Your task to perform on an android device: Go to notification settings Image 0: 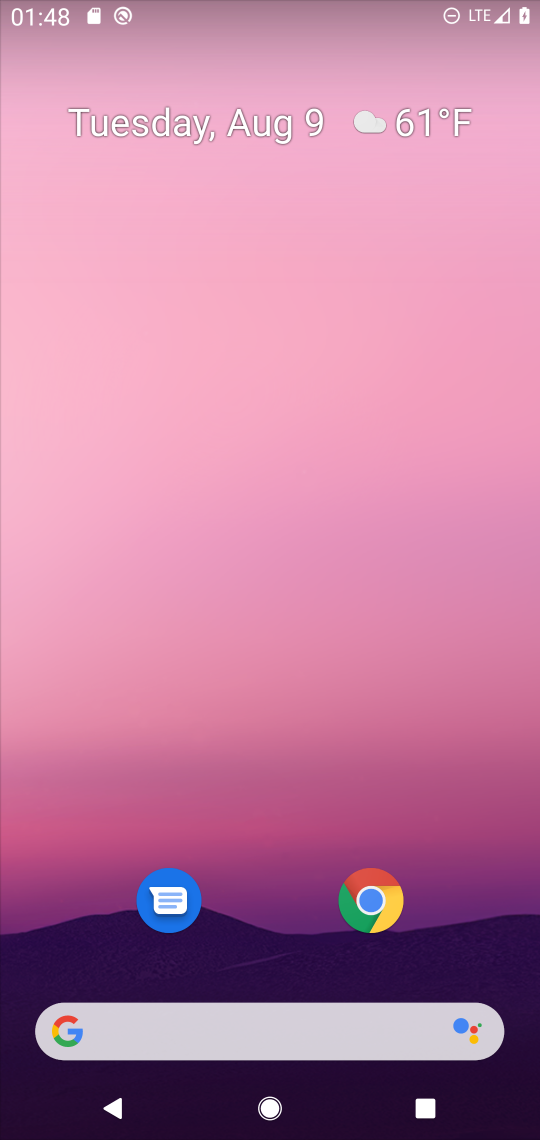
Step 0: press home button
Your task to perform on an android device: Go to notification settings Image 1: 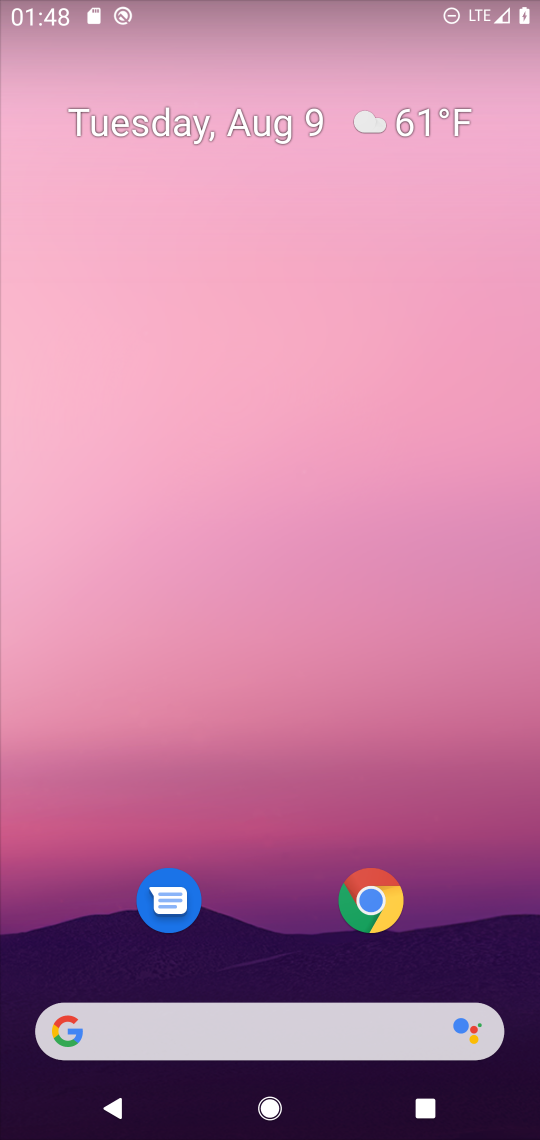
Step 1: drag from (266, 946) to (329, 104)
Your task to perform on an android device: Go to notification settings Image 2: 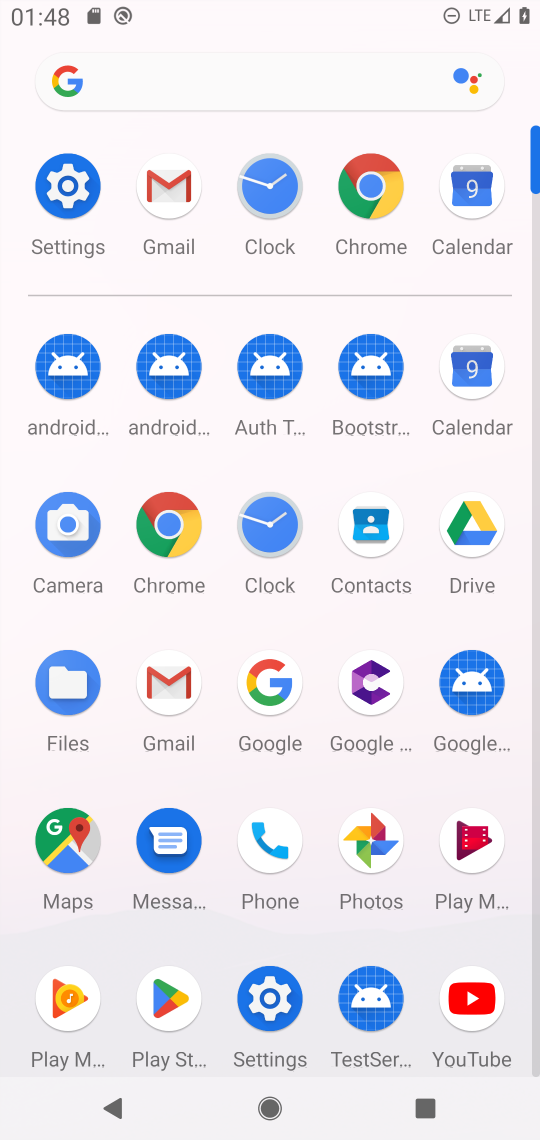
Step 2: click (56, 196)
Your task to perform on an android device: Go to notification settings Image 3: 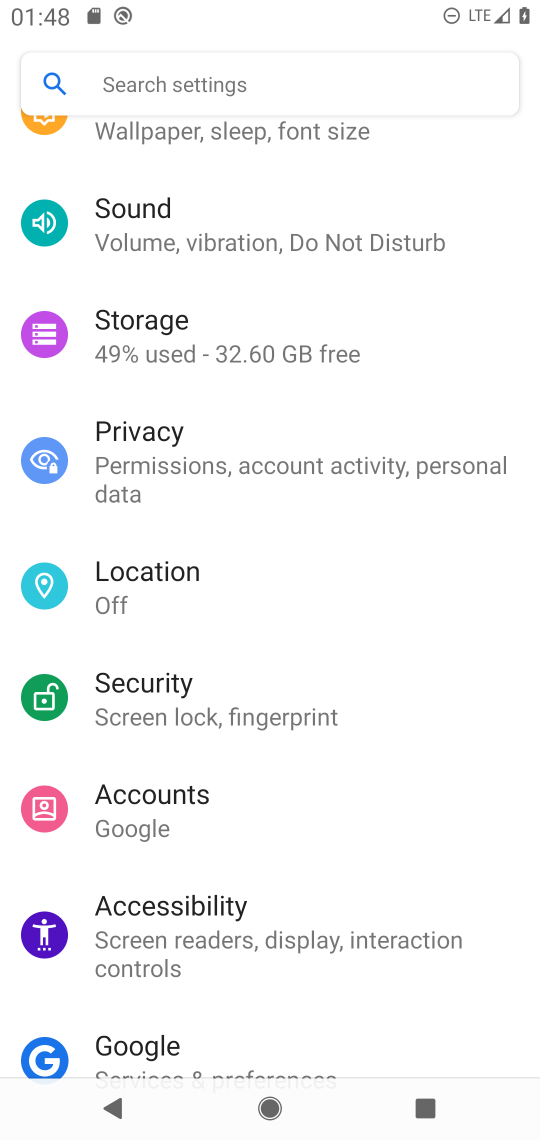
Step 3: click (457, 515)
Your task to perform on an android device: Go to notification settings Image 4: 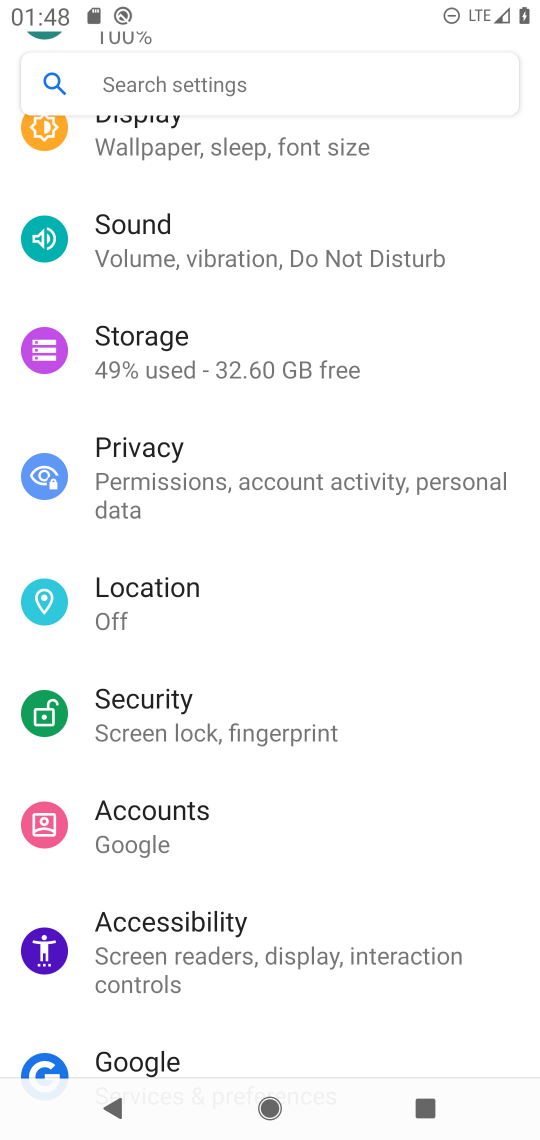
Step 4: drag from (491, 414) to (493, 535)
Your task to perform on an android device: Go to notification settings Image 5: 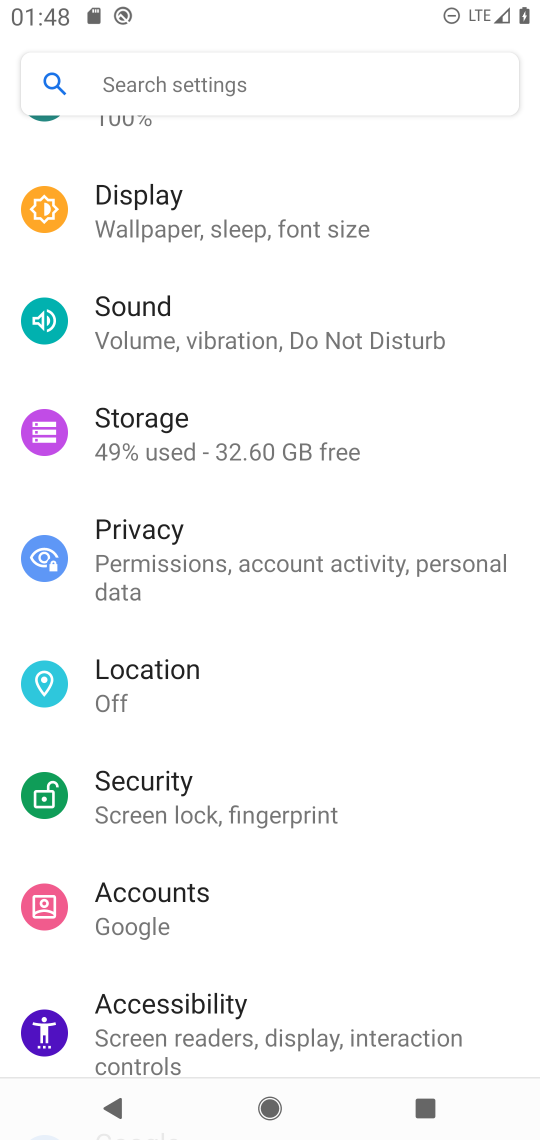
Step 5: drag from (491, 387) to (485, 504)
Your task to perform on an android device: Go to notification settings Image 6: 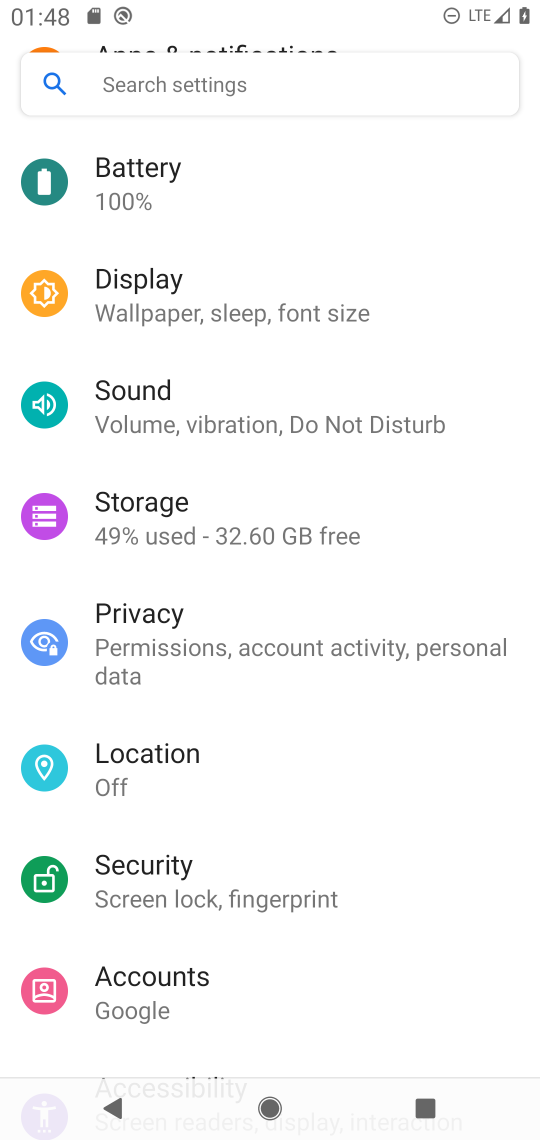
Step 6: drag from (485, 359) to (478, 503)
Your task to perform on an android device: Go to notification settings Image 7: 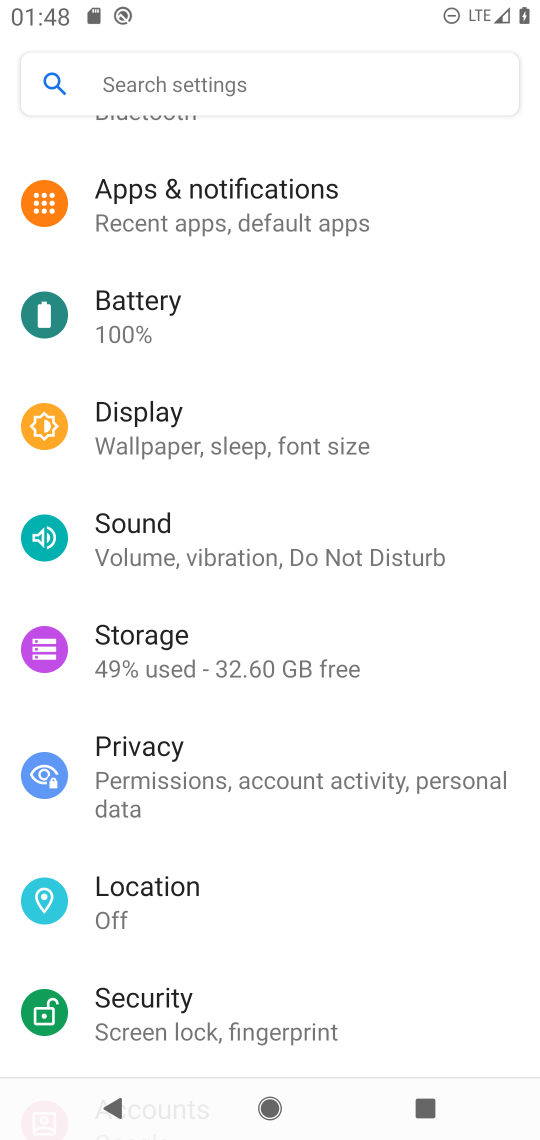
Step 7: drag from (469, 372) to (485, 548)
Your task to perform on an android device: Go to notification settings Image 8: 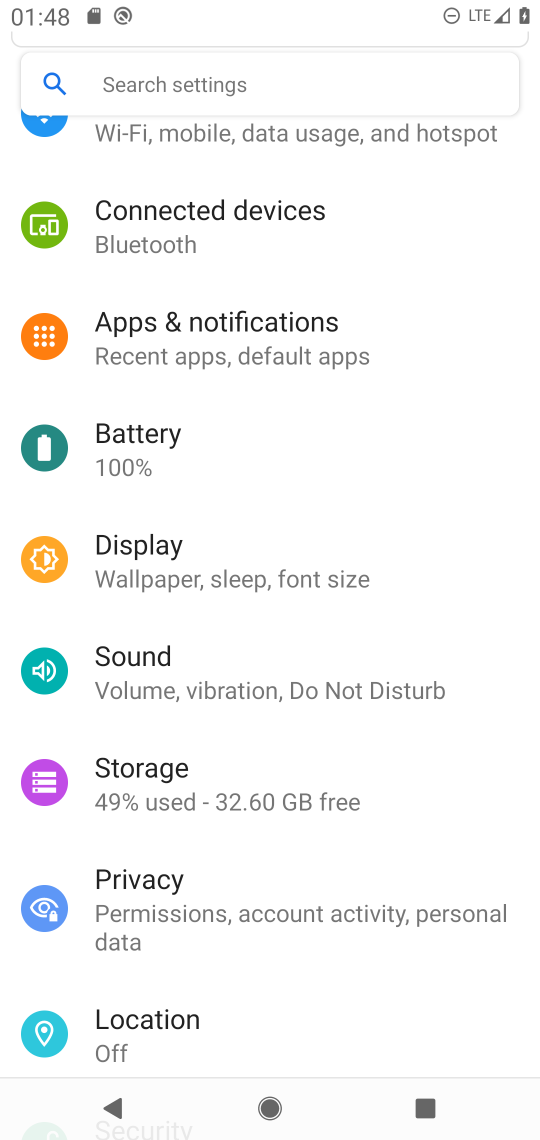
Step 8: drag from (485, 328) to (469, 565)
Your task to perform on an android device: Go to notification settings Image 9: 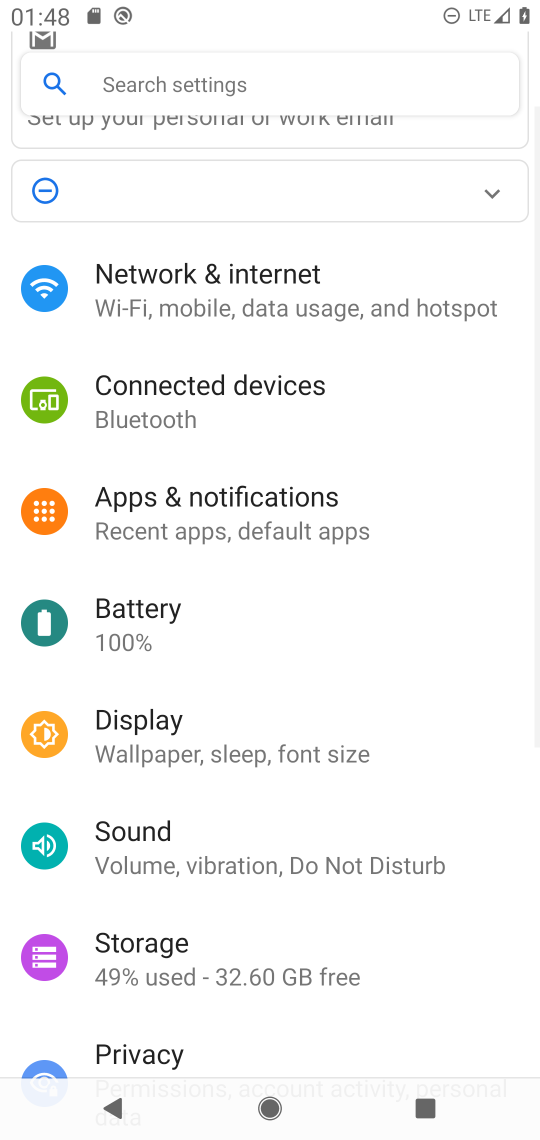
Step 9: drag from (465, 390) to (466, 576)
Your task to perform on an android device: Go to notification settings Image 10: 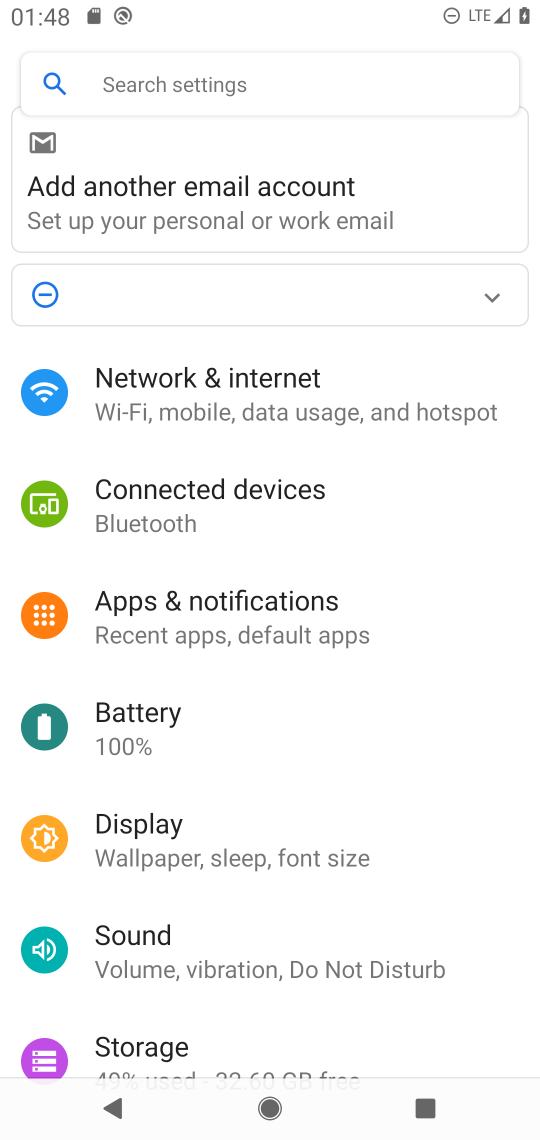
Step 10: click (279, 605)
Your task to perform on an android device: Go to notification settings Image 11: 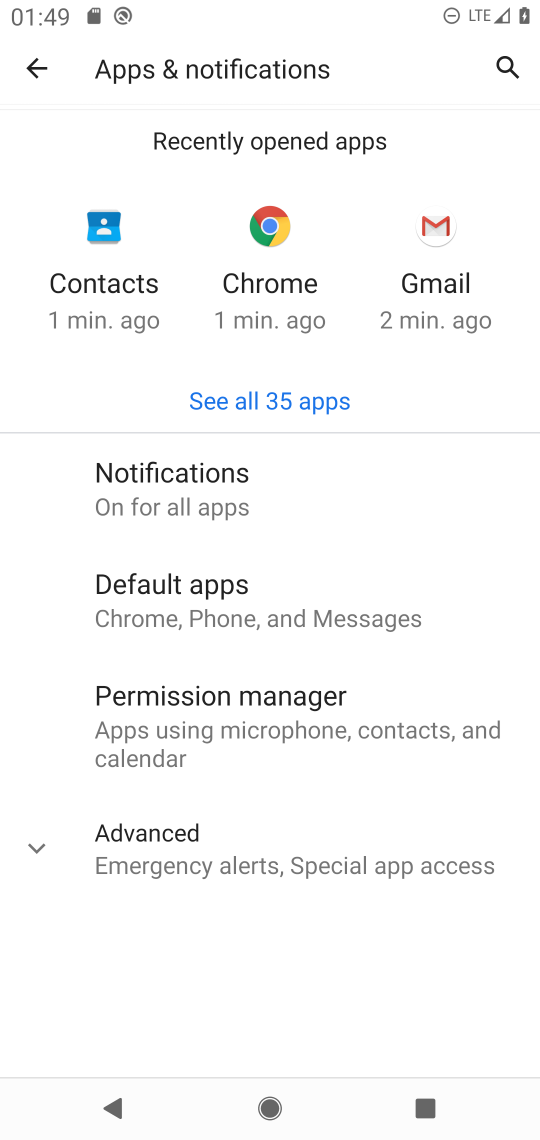
Step 11: click (231, 480)
Your task to perform on an android device: Go to notification settings Image 12: 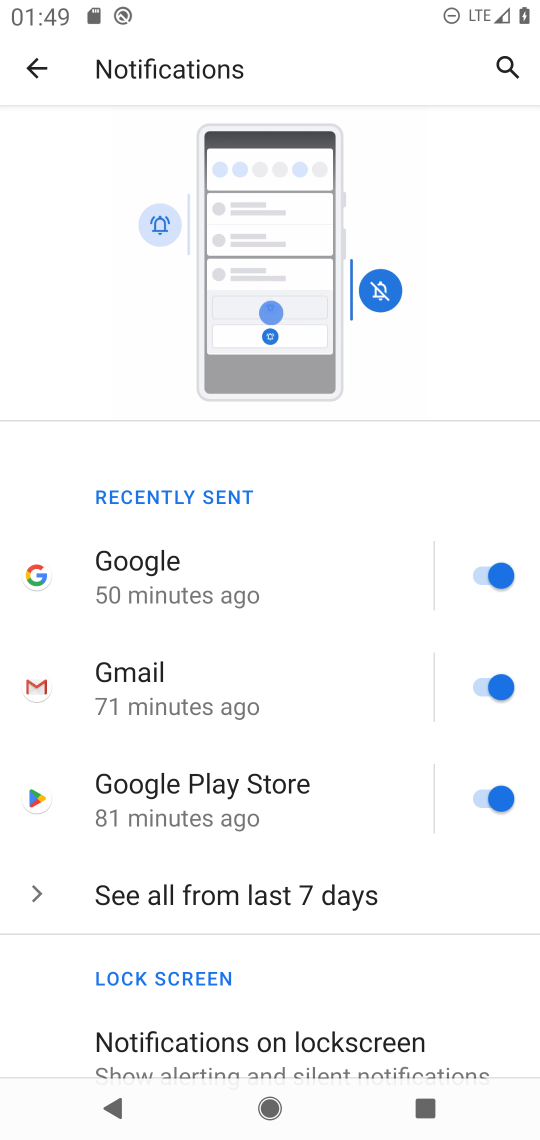
Step 12: task complete